Your task to perform on an android device: What's the weather going to be this weekend? Image 0: 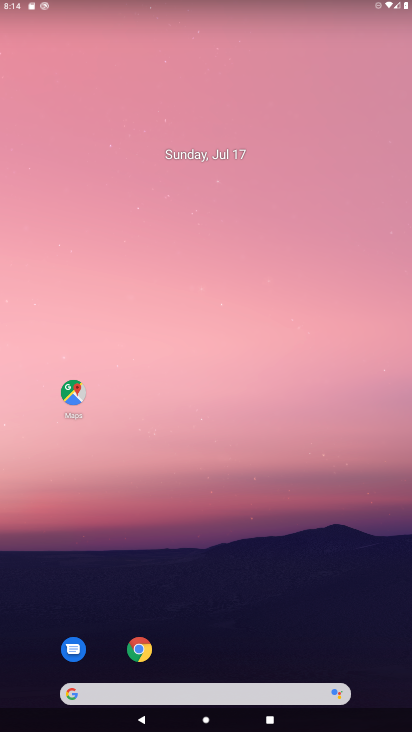
Step 0: drag from (205, 661) to (387, 668)
Your task to perform on an android device: What's the weather going to be this weekend? Image 1: 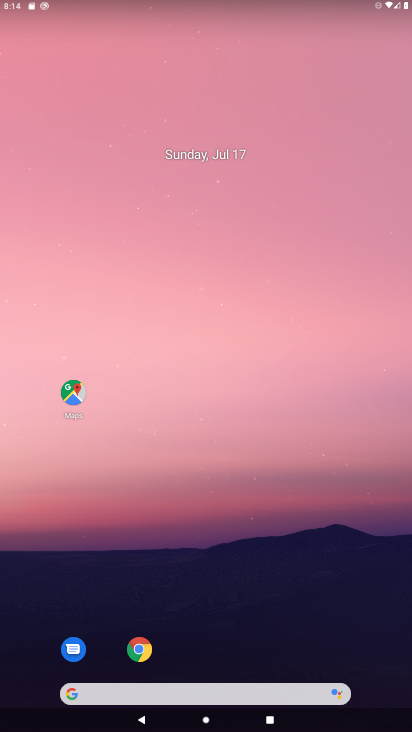
Step 1: drag from (202, 634) to (112, 731)
Your task to perform on an android device: What's the weather going to be this weekend? Image 2: 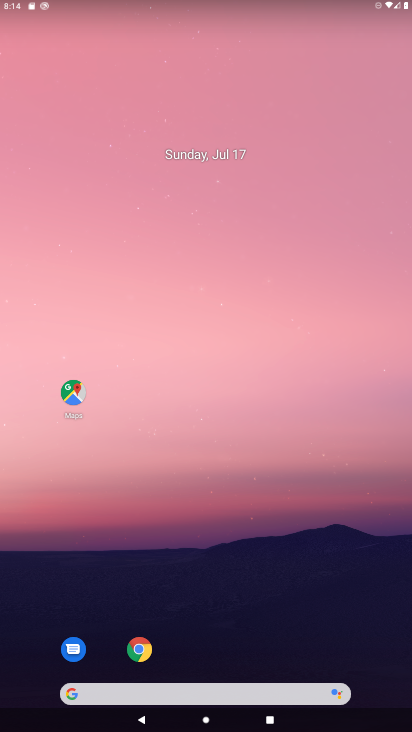
Step 2: click (234, 683)
Your task to perform on an android device: What's the weather going to be this weekend? Image 3: 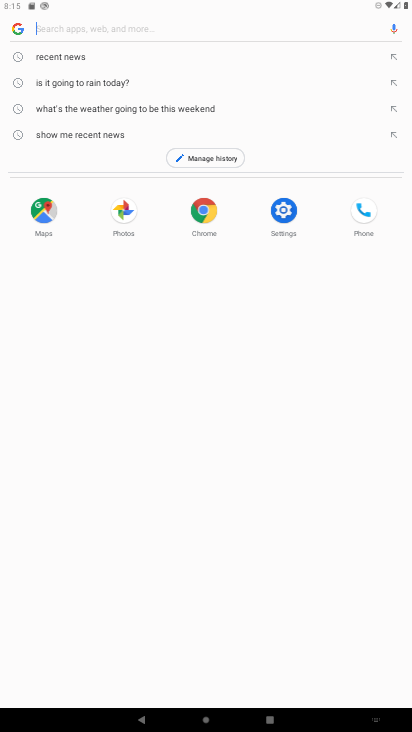
Step 3: type "weather "
Your task to perform on an android device: What's the weather going to be this weekend? Image 4: 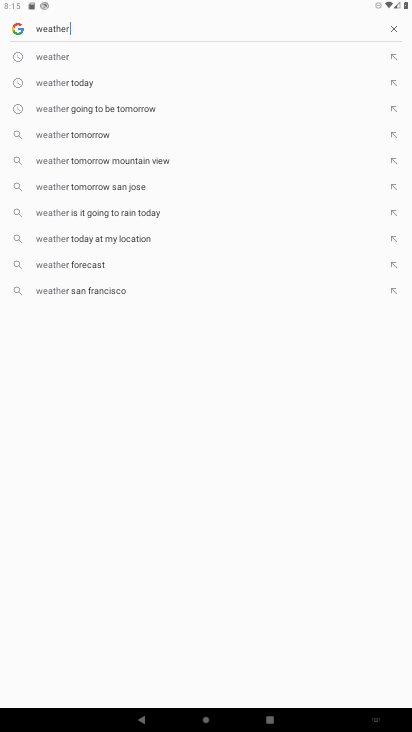
Step 4: type ""
Your task to perform on an android device: What's the weather going to be this weekend? Image 5: 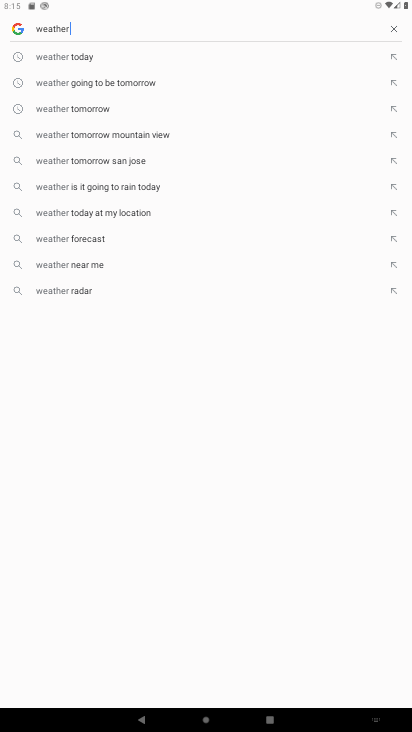
Step 5: click (57, 58)
Your task to perform on an android device: What's the weather going to be this weekend? Image 6: 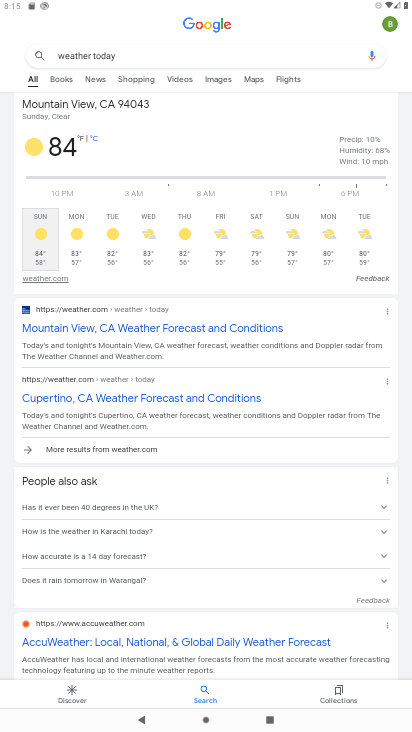
Step 6: task complete